Your task to perform on an android device: Open Youtube and go to the subscriptions tab Image 0: 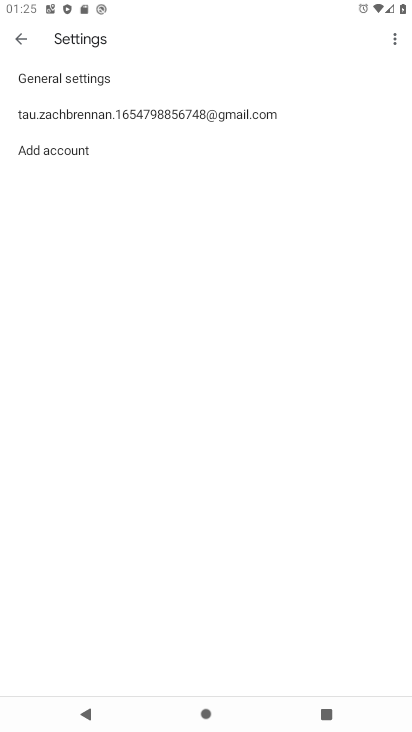
Step 0: press home button
Your task to perform on an android device: Open Youtube and go to the subscriptions tab Image 1: 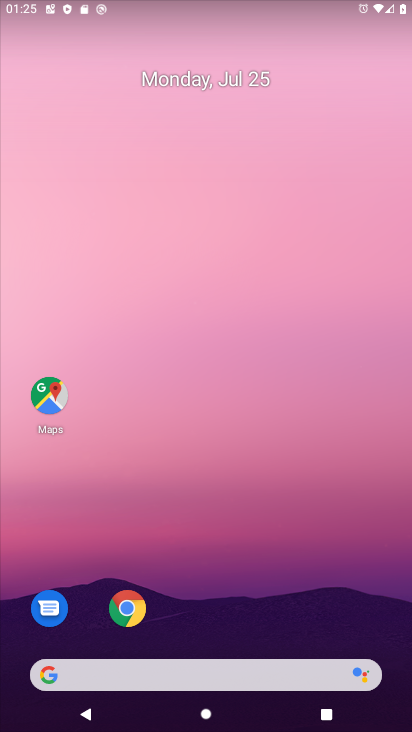
Step 1: drag from (162, 643) to (235, 2)
Your task to perform on an android device: Open Youtube and go to the subscriptions tab Image 2: 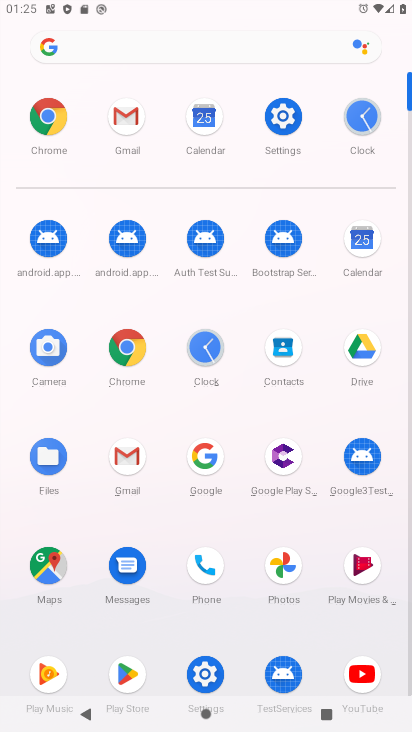
Step 2: click (354, 671)
Your task to perform on an android device: Open Youtube and go to the subscriptions tab Image 3: 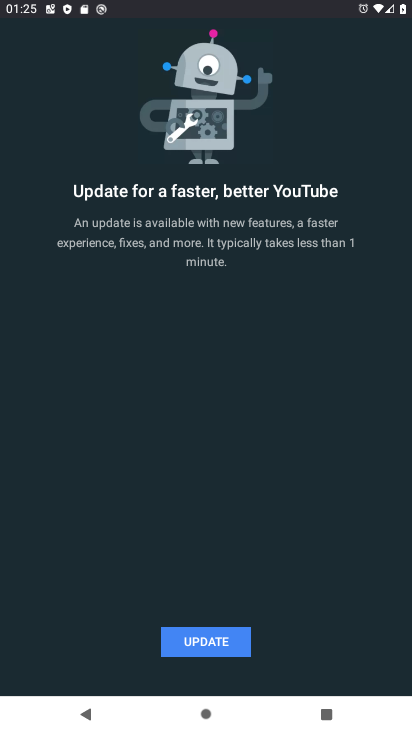
Step 3: click (239, 625)
Your task to perform on an android device: Open Youtube and go to the subscriptions tab Image 4: 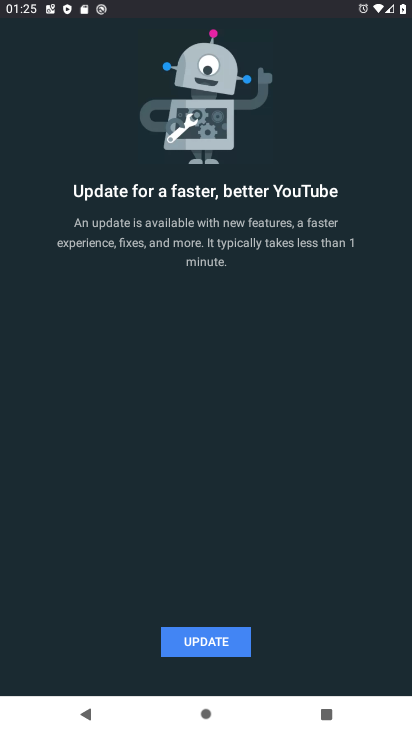
Step 4: click (246, 633)
Your task to perform on an android device: Open Youtube and go to the subscriptions tab Image 5: 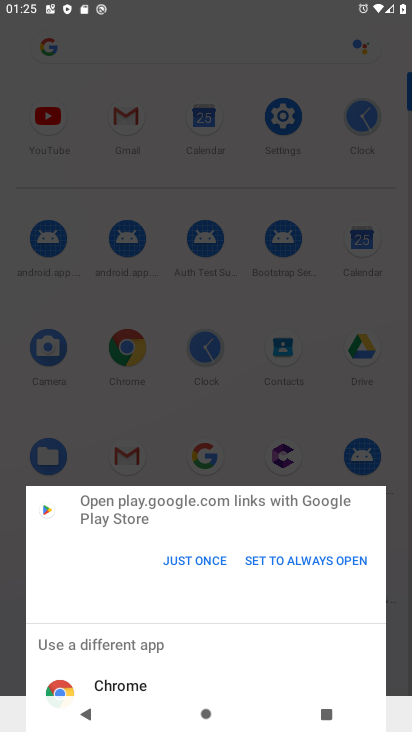
Step 5: click (220, 556)
Your task to perform on an android device: Open Youtube and go to the subscriptions tab Image 6: 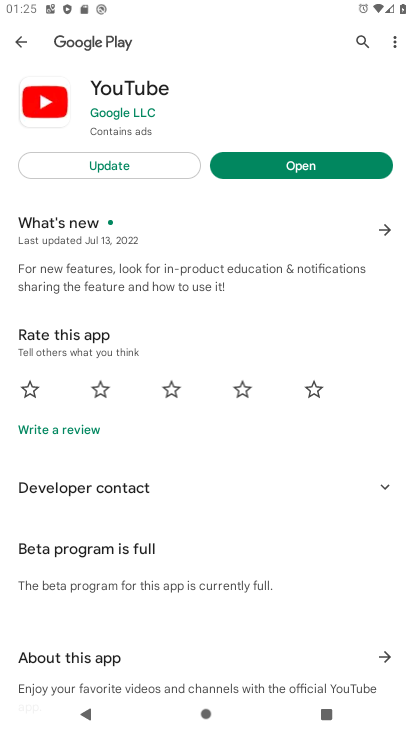
Step 6: click (158, 170)
Your task to perform on an android device: Open Youtube and go to the subscriptions tab Image 7: 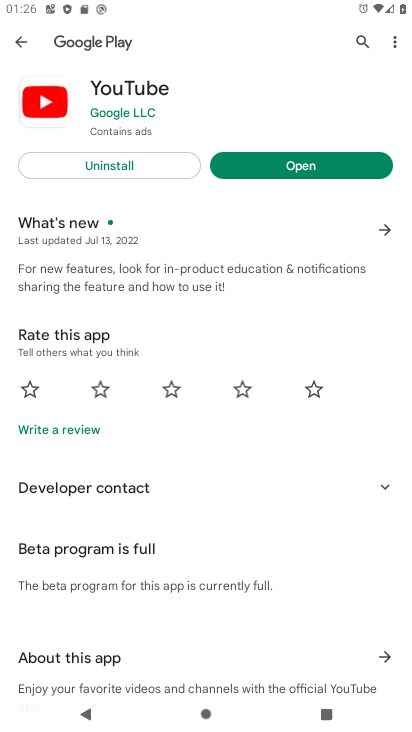
Step 7: click (248, 158)
Your task to perform on an android device: Open Youtube and go to the subscriptions tab Image 8: 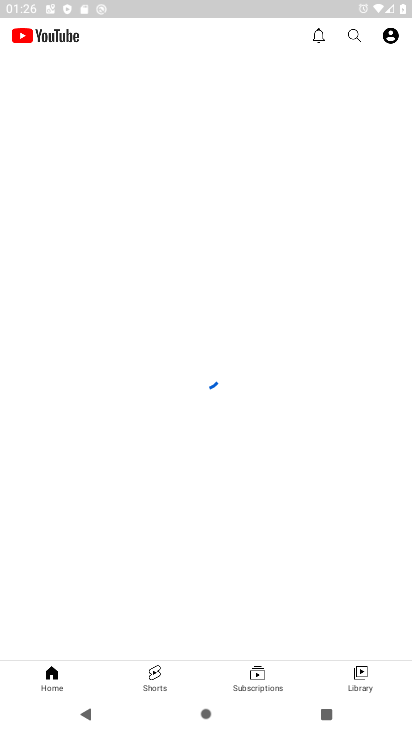
Step 8: click (253, 666)
Your task to perform on an android device: Open Youtube and go to the subscriptions tab Image 9: 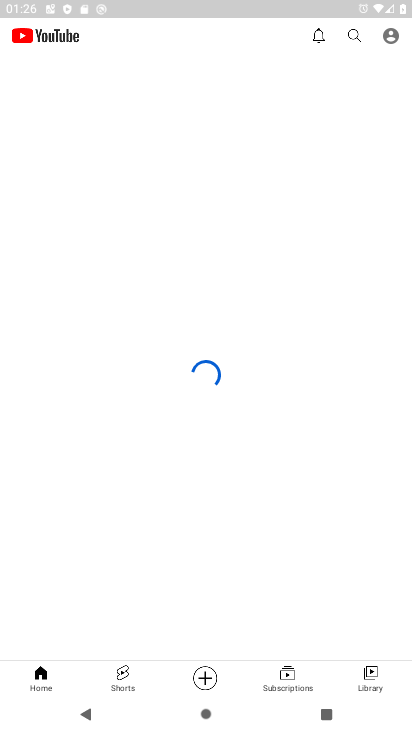
Step 9: click (275, 675)
Your task to perform on an android device: Open Youtube and go to the subscriptions tab Image 10: 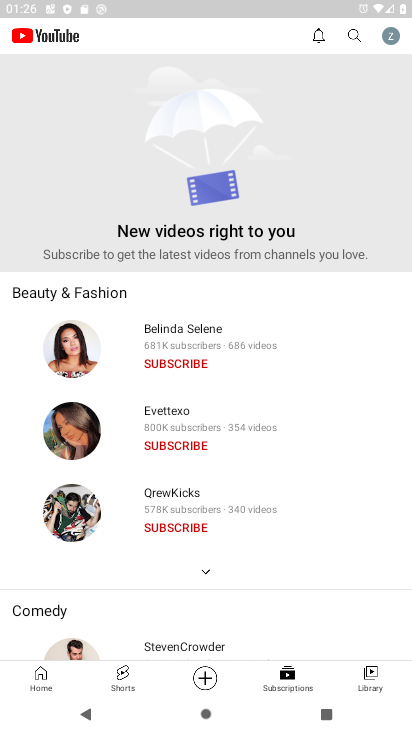
Step 10: click (287, 677)
Your task to perform on an android device: Open Youtube and go to the subscriptions tab Image 11: 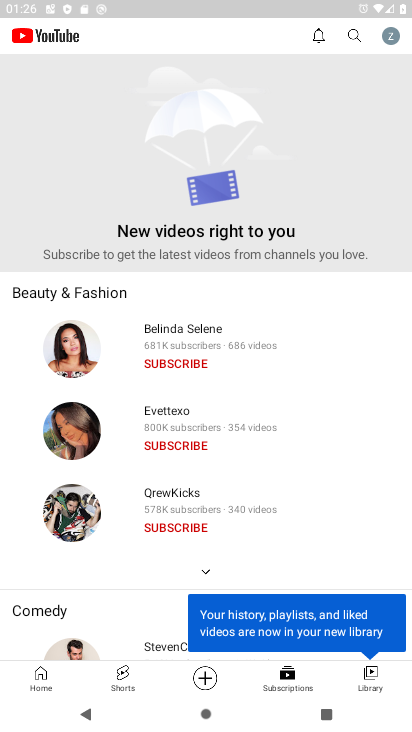
Step 11: task complete